Your task to perform on an android device: Show me productivity apps on the Play Store Image 0: 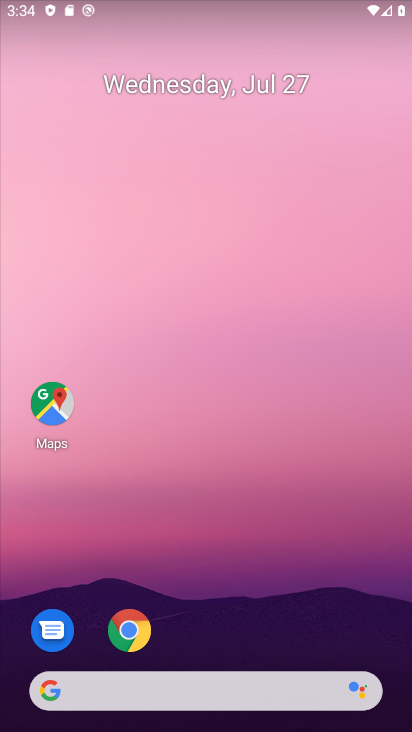
Step 0: drag from (217, 644) to (284, 128)
Your task to perform on an android device: Show me productivity apps on the Play Store Image 1: 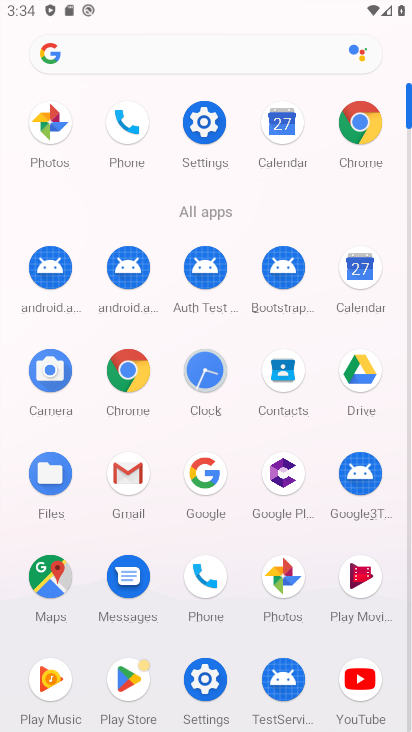
Step 1: click (126, 674)
Your task to perform on an android device: Show me productivity apps on the Play Store Image 2: 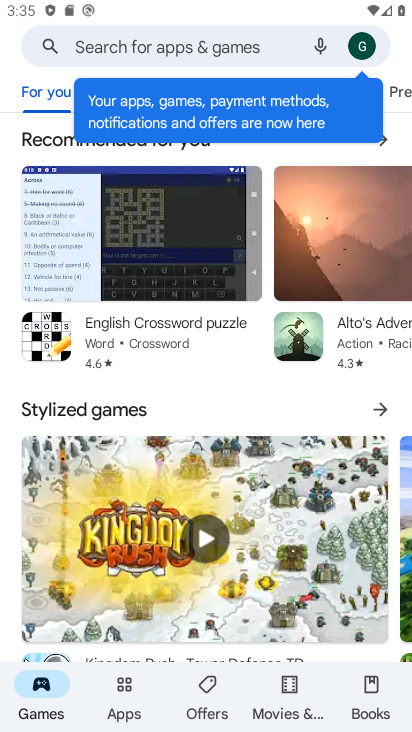
Step 2: click (120, 697)
Your task to perform on an android device: Show me productivity apps on the Play Store Image 3: 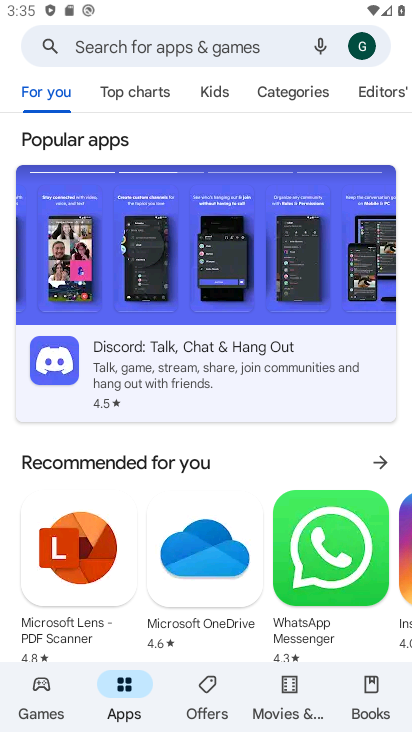
Step 3: click (280, 103)
Your task to perform on an android device: Show me productivity apps on the Play Store Image 4: 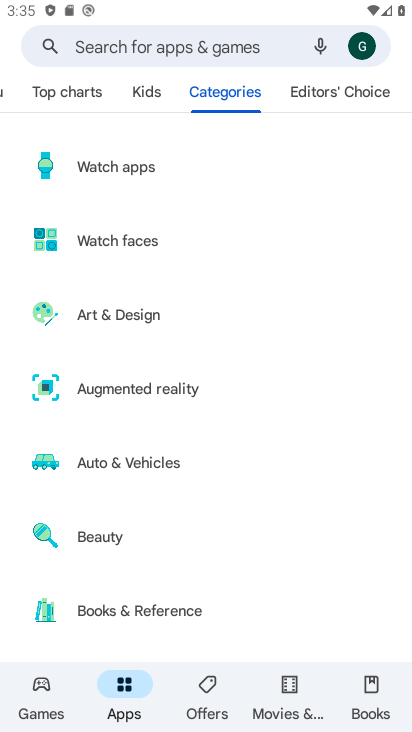
Step 4: drag from (162, 622) to (246, 139)
Your task to perform on an android device: Show me productivity apps on the Play Store Image 5: 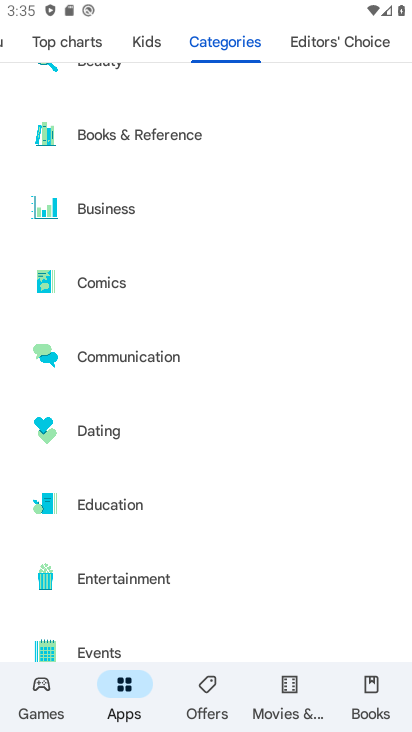
Step 5: drag from (144, 619) to (244, 66)
Your task to perform on an android device: Show me productivity apps on the Play Store Image 6: 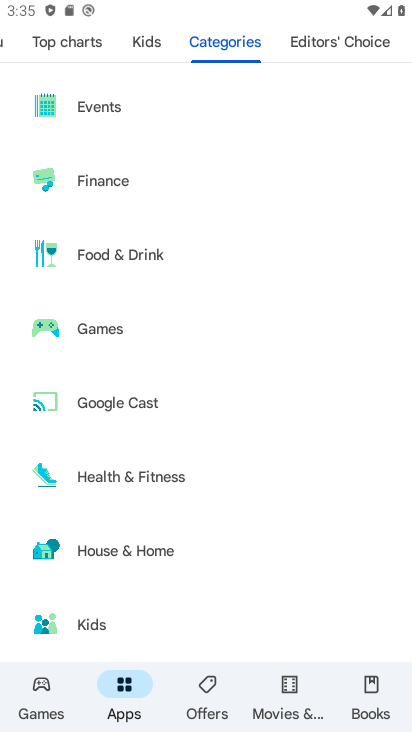
Step 6: drag from (147, 623) to (165, 185)
Your task to perform on an android device: Show me productivity apps on the Play Store Image 7: 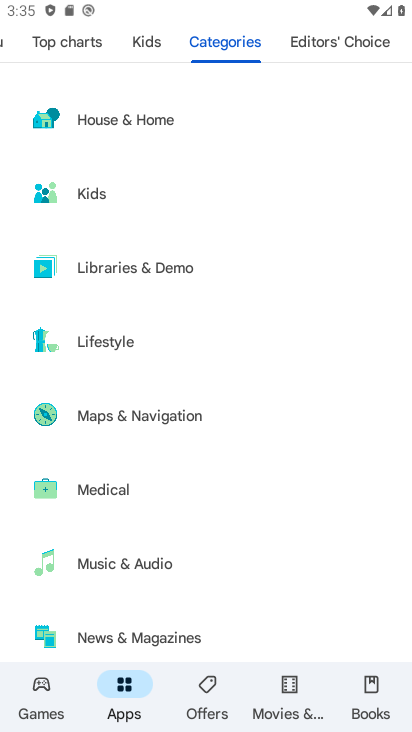
Step 7: drag from (151, 596) to (220, 97)
Your task to perform on an android device: Show me productivity apps on the Play Store Image 8: 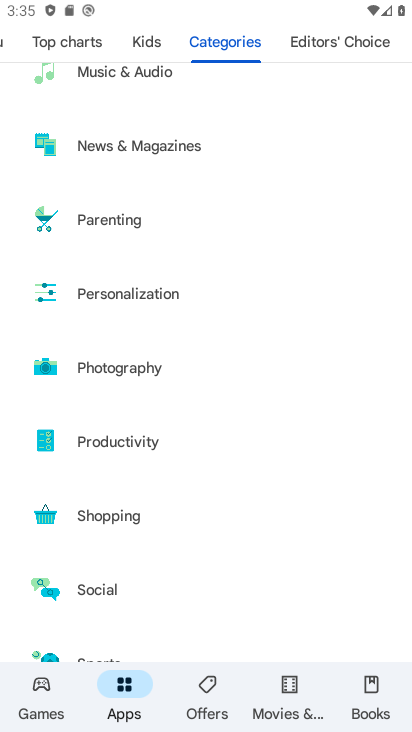
Step 8: click (144, 437)
Your task to perform on an android device: Show me productivity apps on the Play Store Image 9: 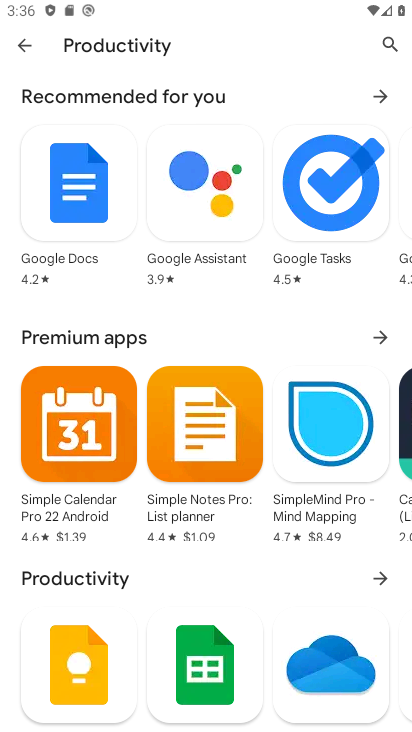
Step 9: task complete